Your task to perform on an android device: add a label to a message in the gmail app Image 0: 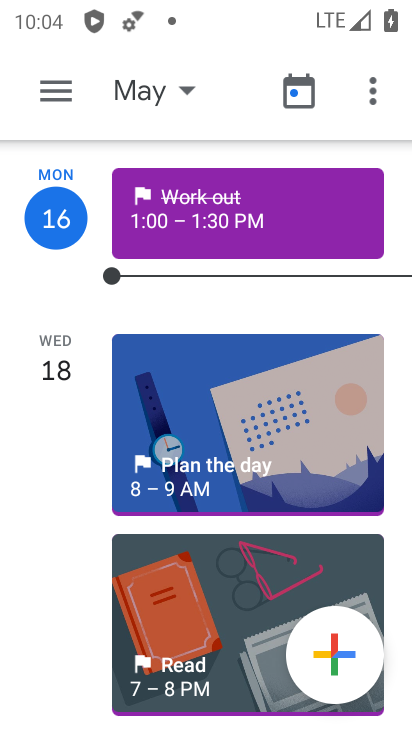
Step 0: press home button
Your task to perform on an android device: add a label to a message in the gmail app Image 1: 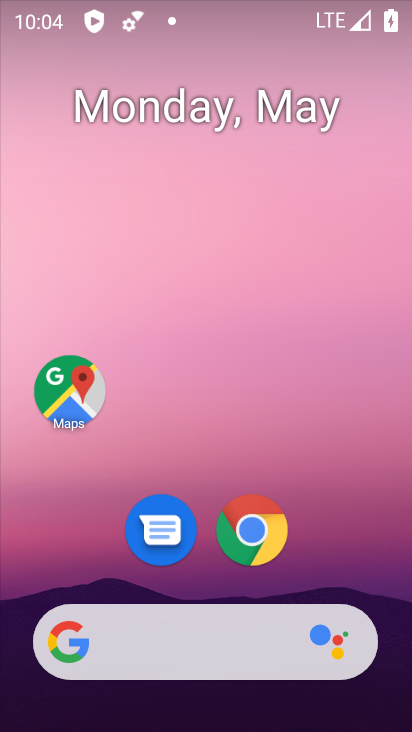
Step 1: drag from (254, 675) to (183, 162)
Your task to perform on an android device: add a label to a message in the gmail app Image 2: 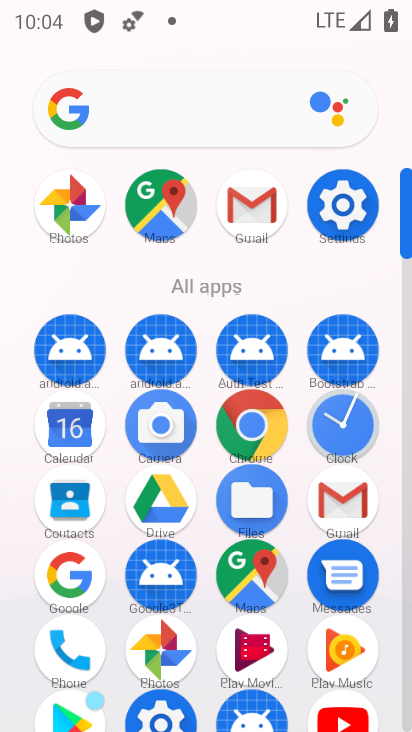
Step 2: click (346, 509)
Your task to perform on an android device: add a label to a message in the gmail app Image 3: 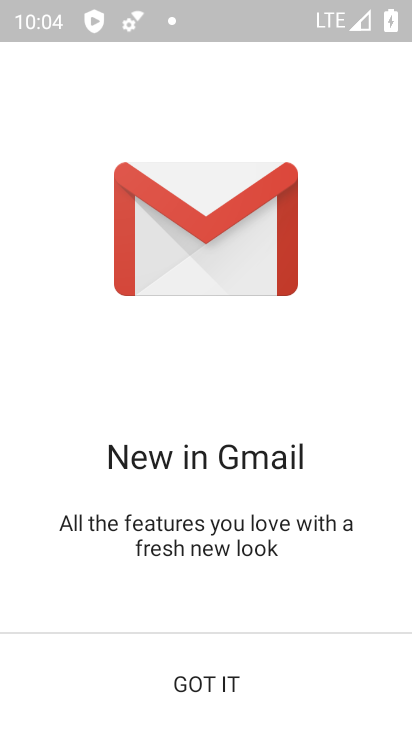
Step 3: click (202, 665)
Your task to perform on an android device: add a label to a message in the gmail app Image 4: 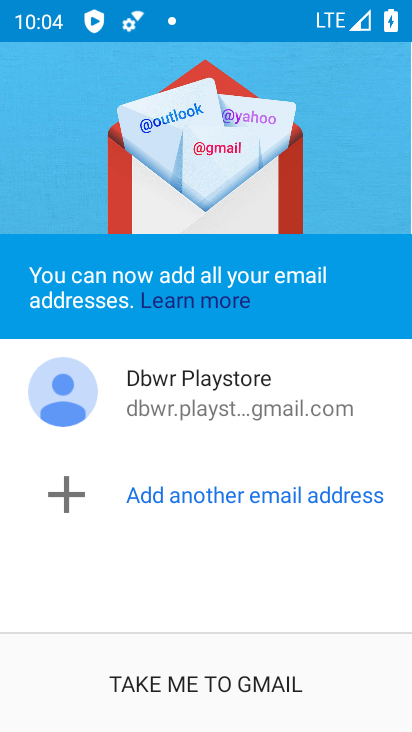
Step 4: click (173, 667)
Your task to perform on an android device: add a label to a message in the gmail app Image 5: 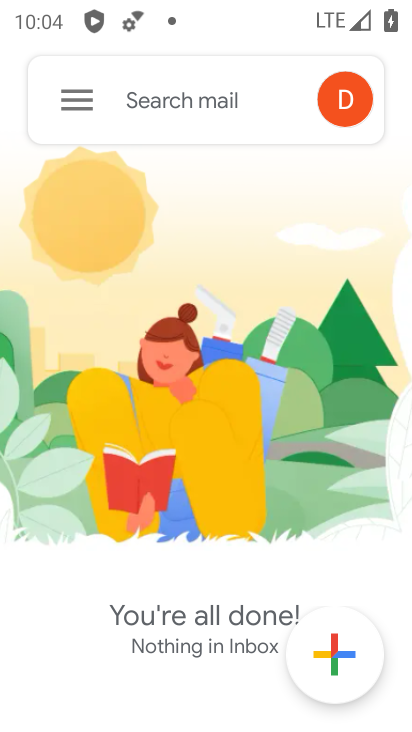
Step 5: click (91, 110)
Your task to perform on an android device: add a label to a message in the gmail app Image 6: 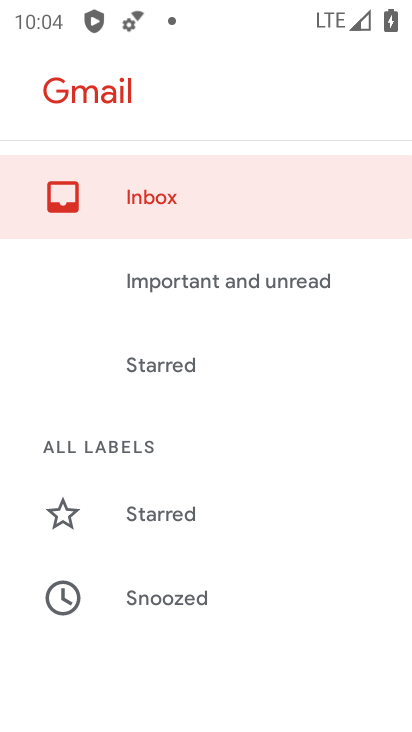
Step 6: drag from (152, 534) to (309, 133)
Your task to perform on an android device: add a label to a message in the gmail app Image 7: 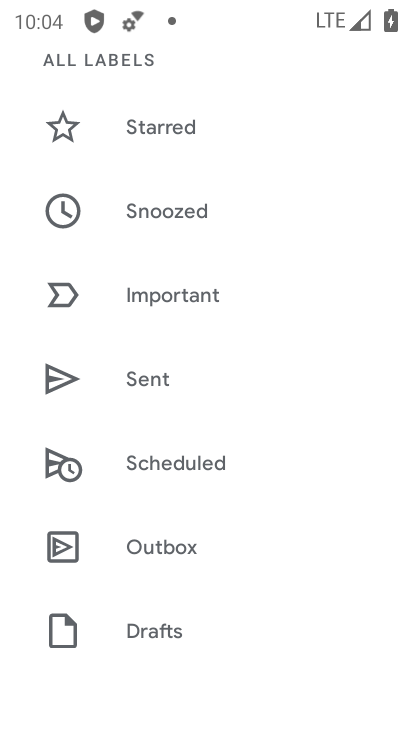
Step 7: drag from (134, 535) to (277, 196)
Your task to perform on an android device: add a label to a message in the gmail app Image 8: 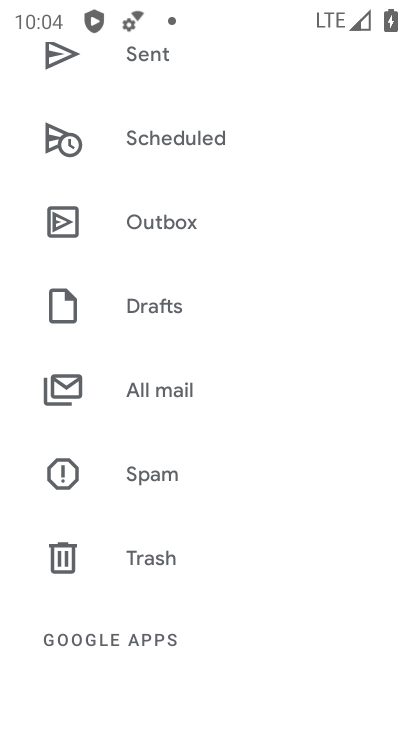
Step 8: drag from (154, 560) to (250, 299)
Your task to perform on an android device: add a label to a message in the gmail app Image 9: 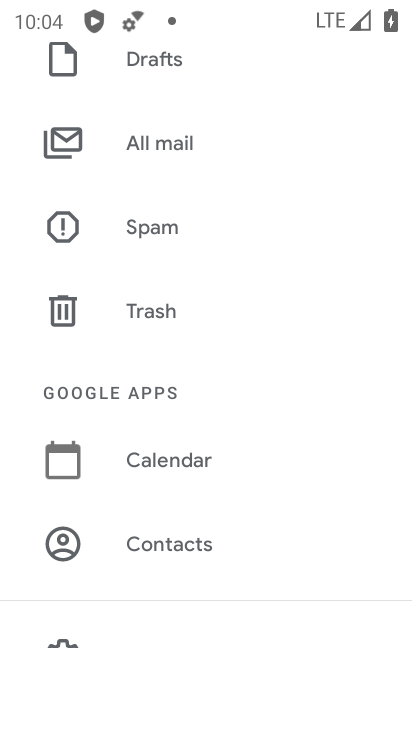
Step 9: drag from (138, 583) to (190, 468)
Your task to perform on an android device: add a label to a message in the gmail app Image 10: 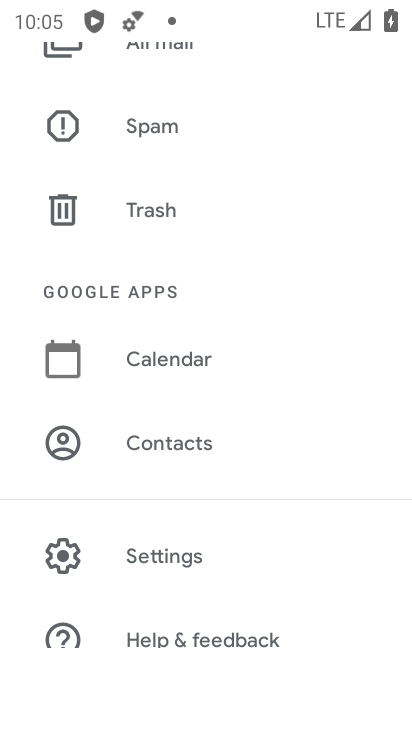
Step 10: click (151, 564)
Your task to perform on an android device: add a label to a message in the gmail app Image 11: 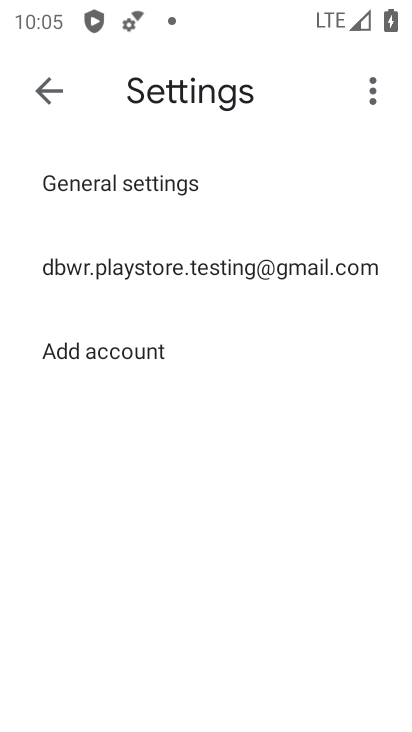
Step 11: click (141, 267)
Your task to perform on an android device: add a label to a message in the gmail app Image 12: 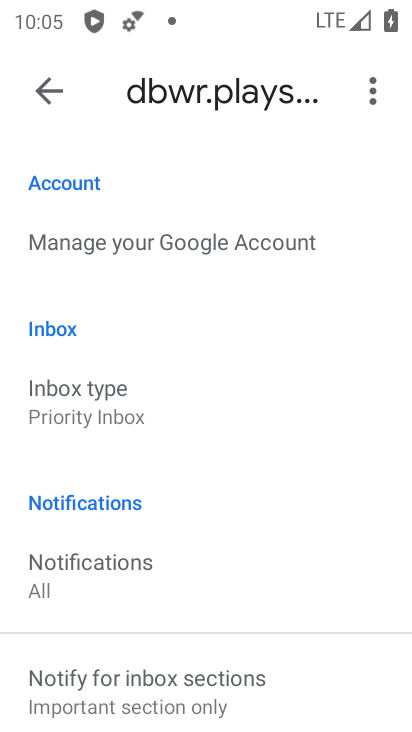
Step 12: drag from (78, 650) to (220, 461)
Your task to perform on an android device: add a label to a message in the gmail app Image 13: 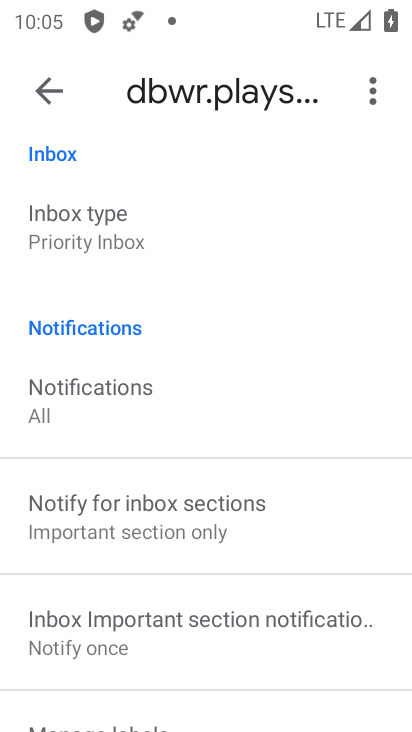
Step 13: drag from (146, 554) to (227, 378)
Your task to perform on an android device: add a label to a message in the gmail app Image 14: 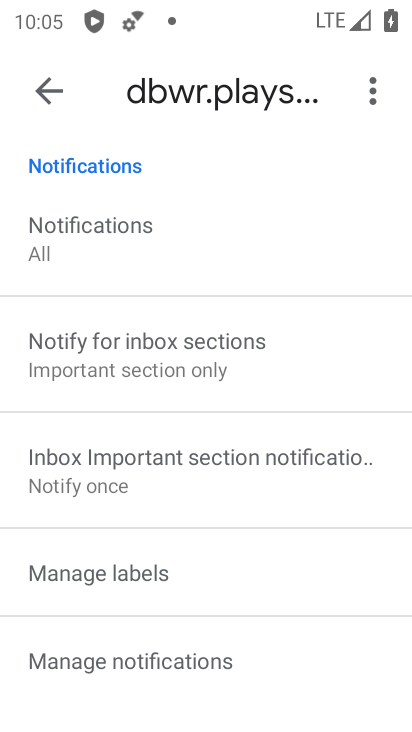
Step 14: click (115, 575)
Your task to perform on an android device: add a label to a message in the gmail app Image 15: 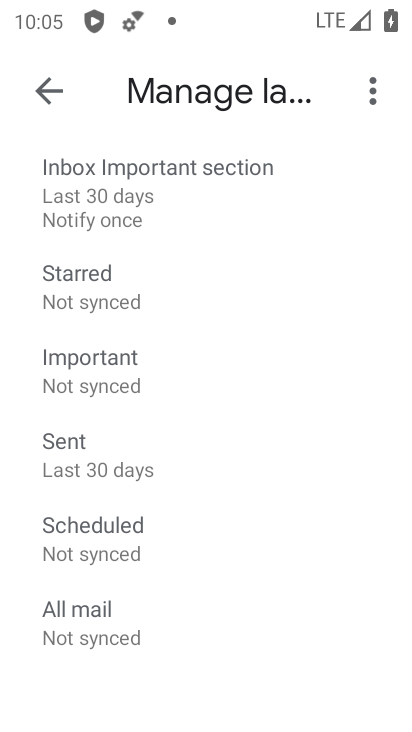
Step 15: click (171, 276)
Your task to perform on an android device: add a label to a message in the gmail app Image 16: 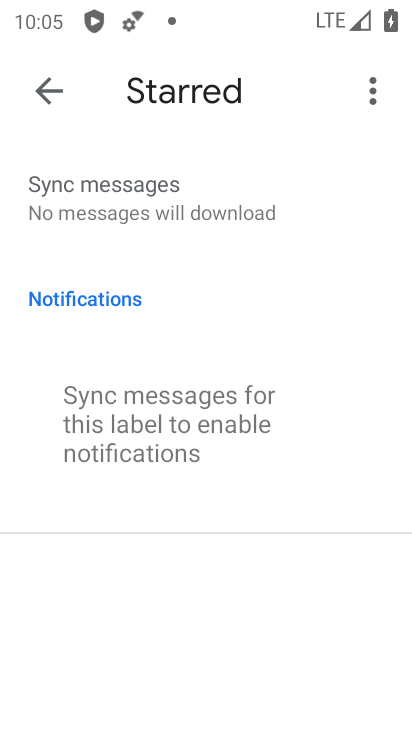
Step 16: task complete